Your task to perform on an android device: Go to Reddit.com Image 0: 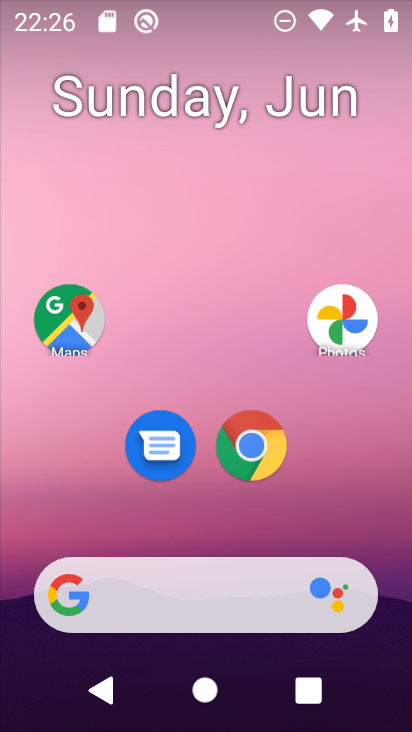
Step 0: press home button
Your task to perform on an android device: Go to Reddit.com Image 1: 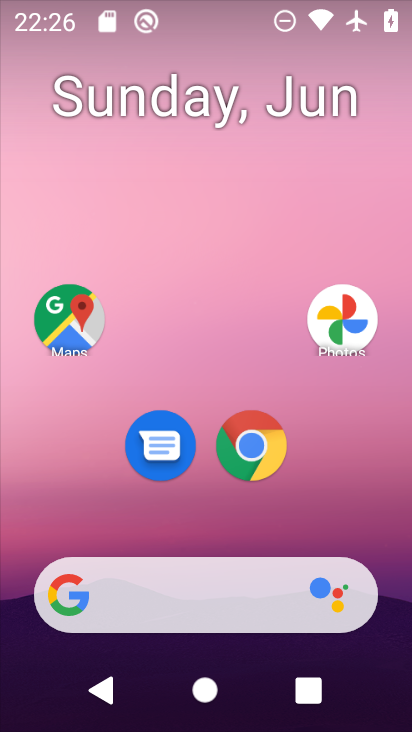
Step 1: click (60, 589)
Your task to perform on an android device: Go to Reddit.com Image 2: 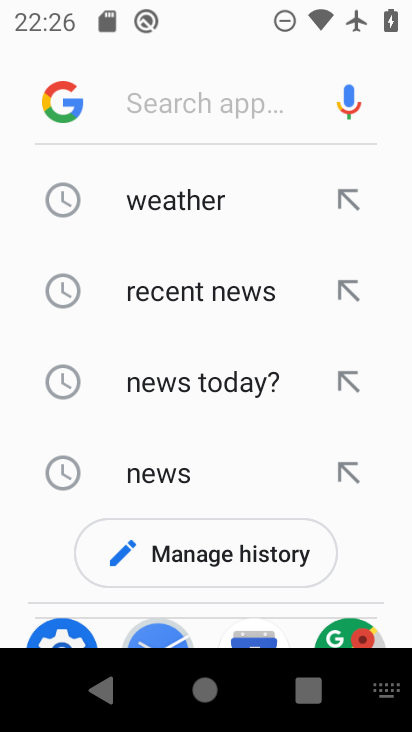
Step 2: type "Reddit.com"
Your task to perform on an android device: Go to Reddit.com Image 3: 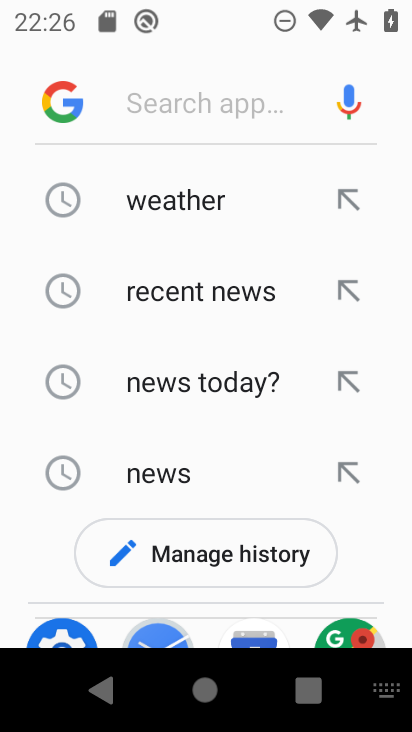
Step 3: click (257, 121)
Your task to perform on an android device: Go to Reddit.com Image 4: 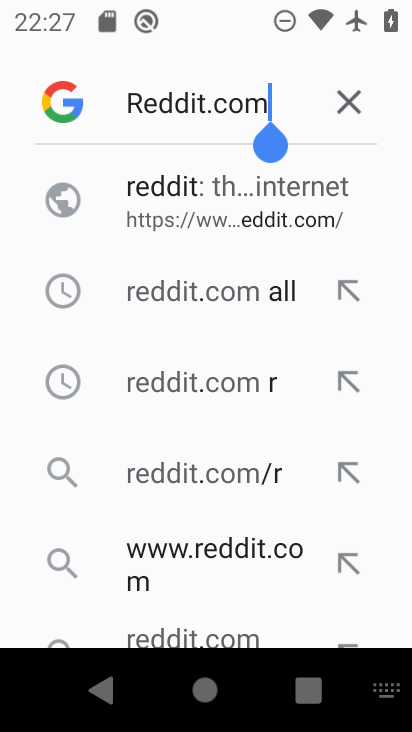
Step 4: click (157, 198)
Your task to perform on an android device: Go to Reddit.com Image 5: 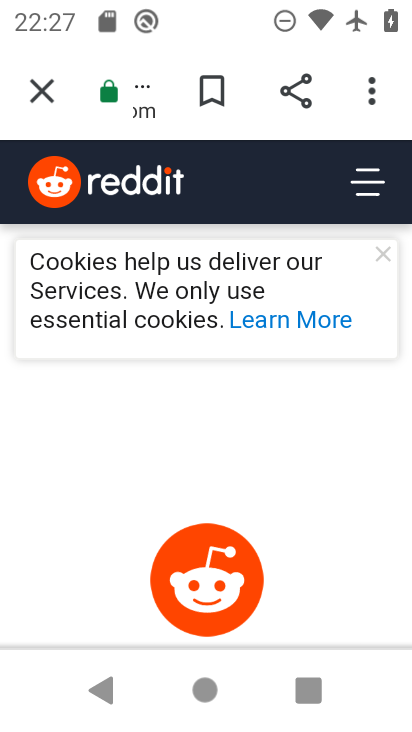
Step 5: task complete